Your task to perform on an android device: open app "Facebook Messenger" (install if not already installed) and enter user name: "divorce@inbox.com" and password: "caviar" Image 0: 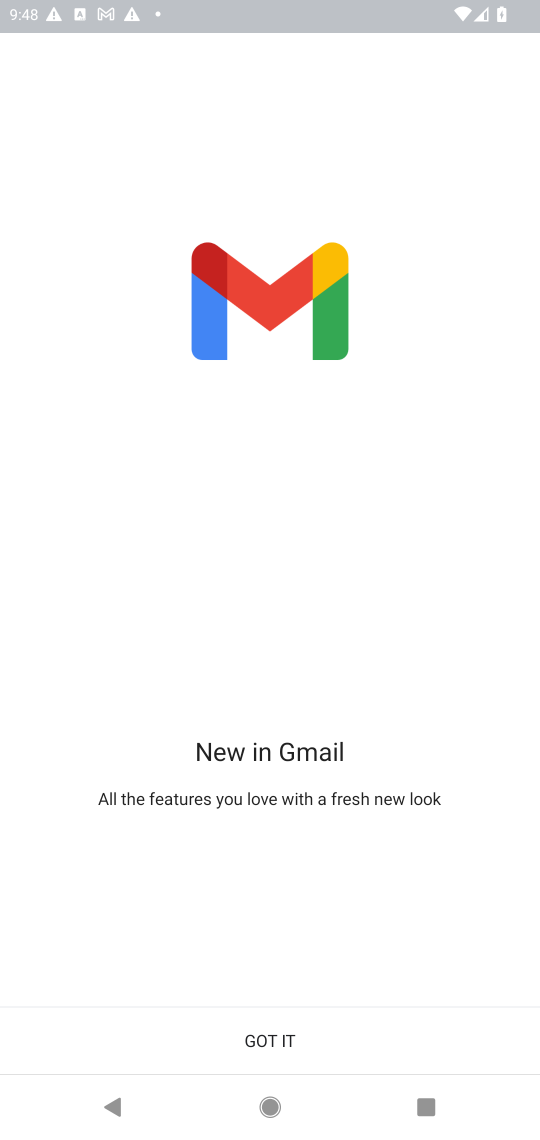
Step 0: press home button
Your task to perform on an android device: open app "Facebook Messenger" (install if not already installed) and enter user name: "divorce@inbox.com" and password: "caviar" Image 1: 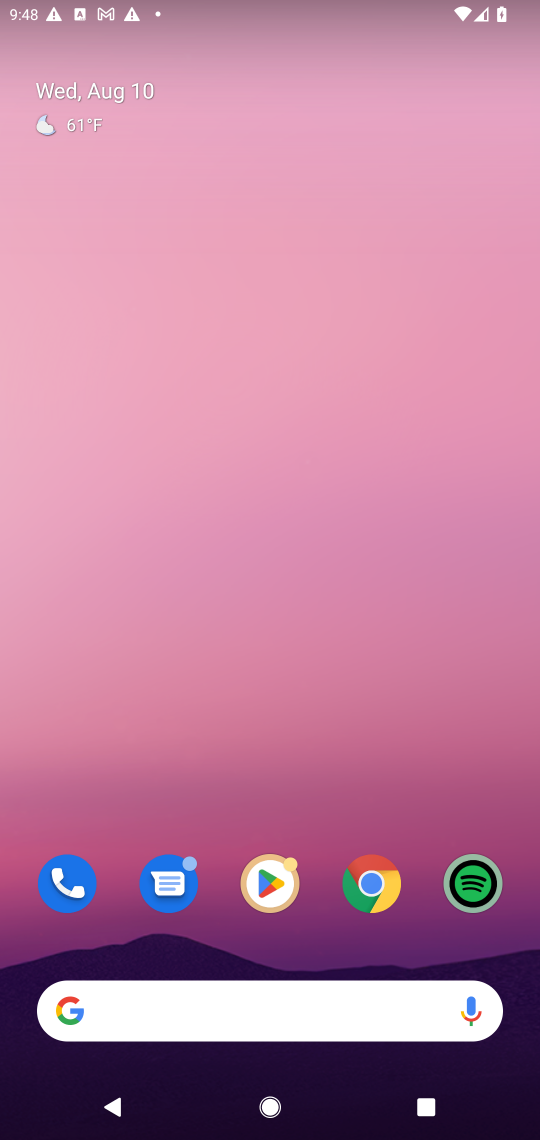
Step 1: click (250, 876)
Your task to perform on an android device: open app "Facebook Messenger" (install if not already installed) and enter user name: "divorce@inbox.com" and password: "caviar" Image 2: 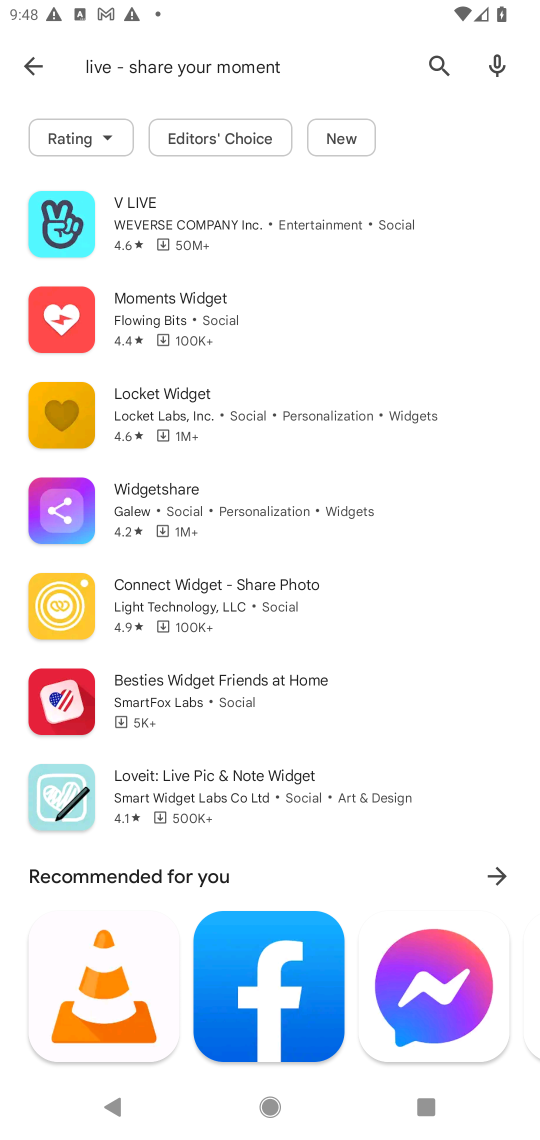
Step 2: click (425, 61)
Your task to perform on an android device: open app "Facebook Messenger" (install if not already installed) and enter user name: "divorce@inbox.com" and password: "caviar" Image 3: 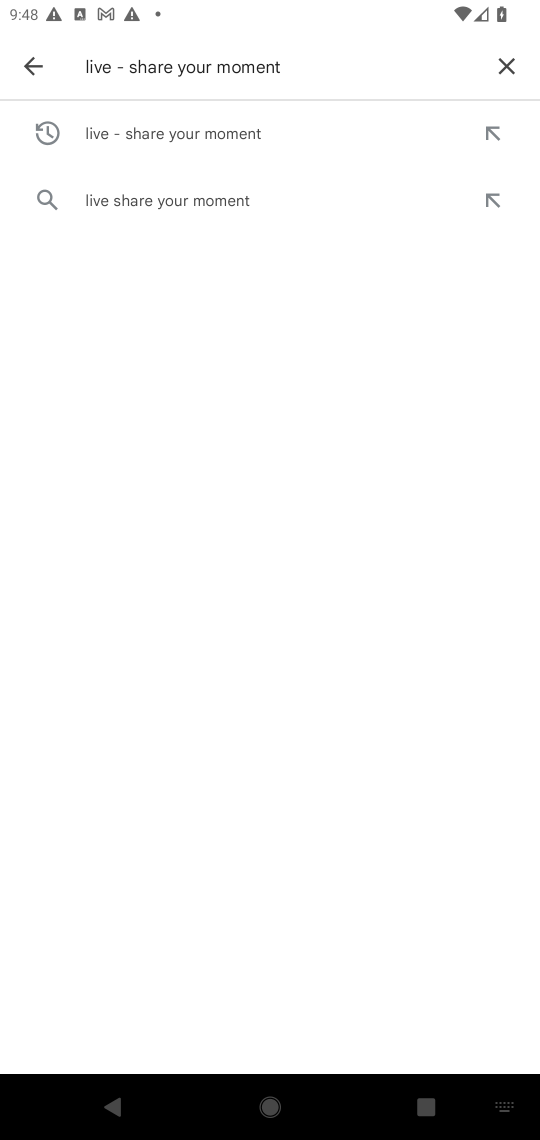
Step 3: click (501, 66)
Your task to perform on an android device: open app "Facebook Messenger" (install if not already installed) and enter user name: "divorce@inbox.com" and password: "caviar" Image 4: 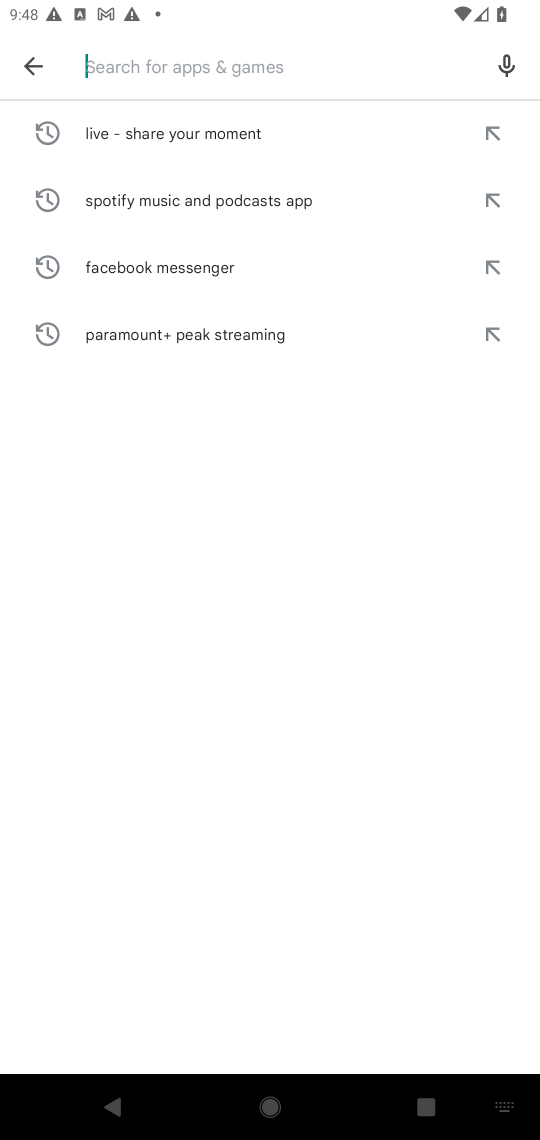
Step 4: type "Facebook Messenger"
Your task to perform on an android device: open app "Facebook Messenger" (install if not already installed) and enter user name: "divorce@inbox.com" and password: "caviar" Image 5: 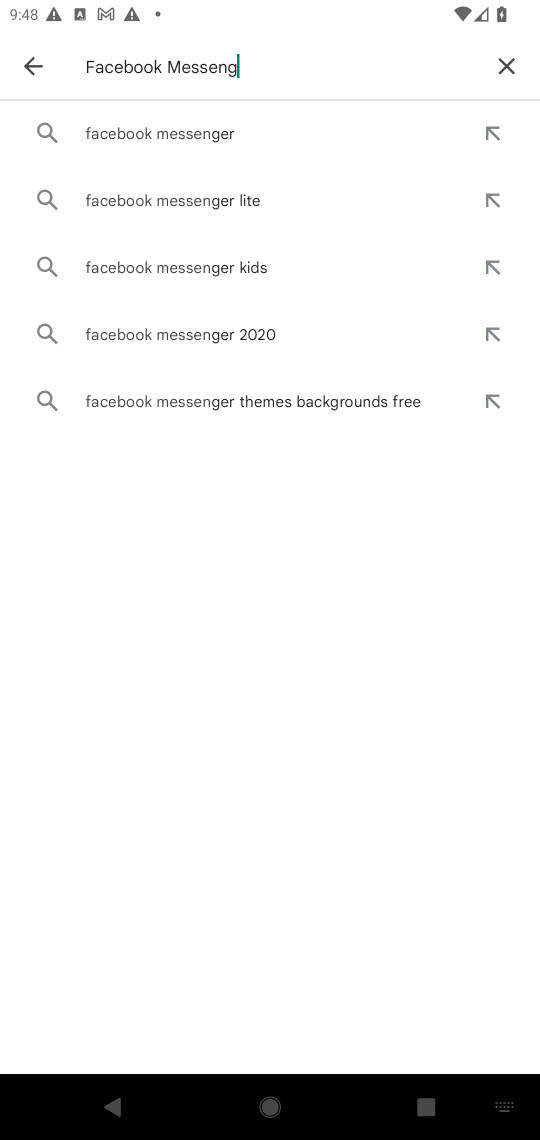
Step 5: type ""
Your task to perform on an android device: open app "Facebook Messenger" (install if not already installed) and enter user name: "divorce@inbox.com" and password: "caviar" Image 6: 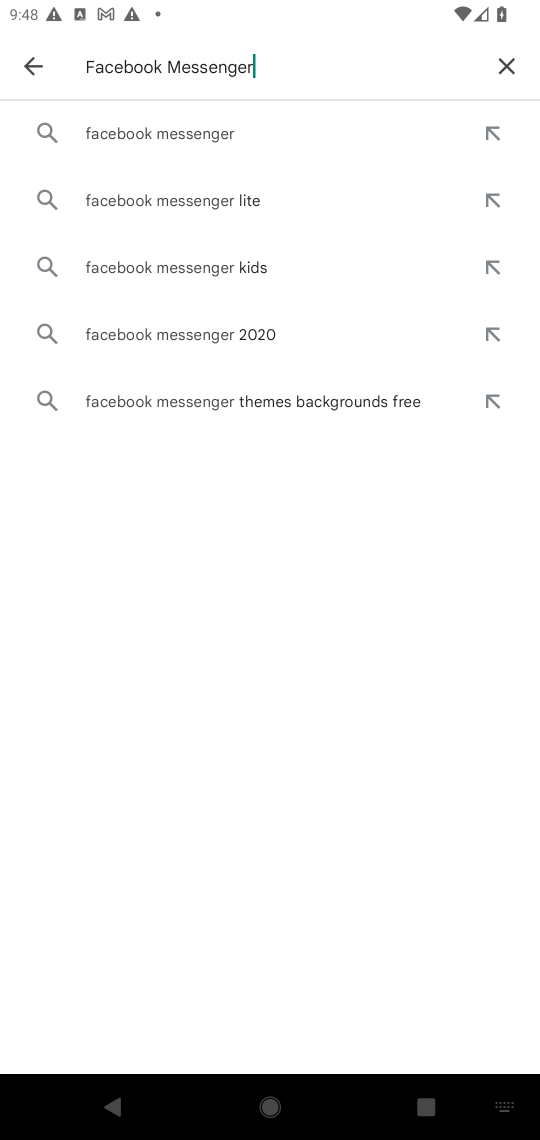
Step 6: click (119, 120)
Your task to perform on an android device: open app "Facebook Messenger" (install if not already installed) and enter user name: "divorce@inbox.com" and password: "caviar" Image 7: 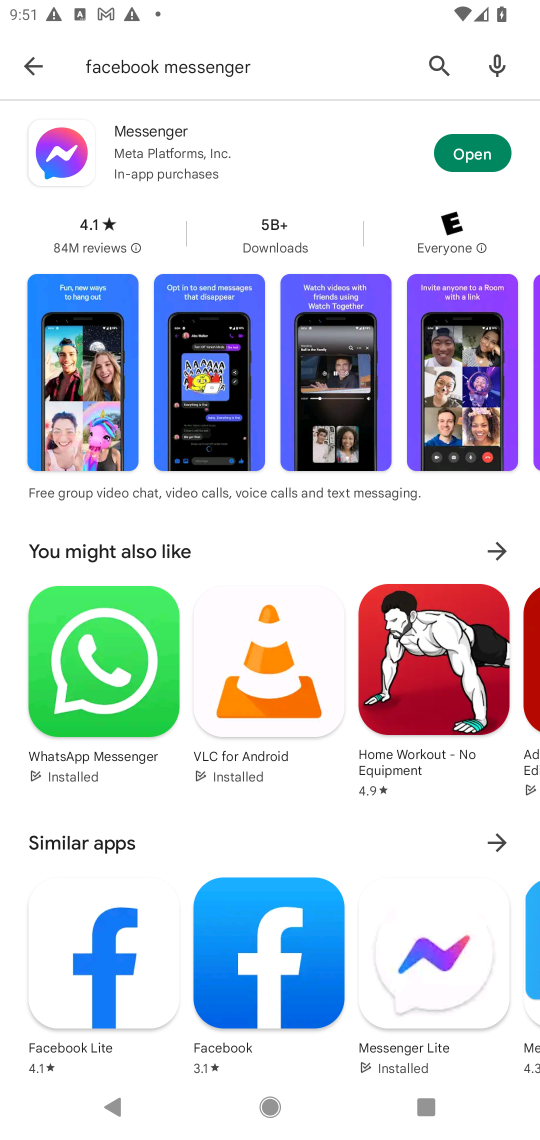
Step 7: click (477, 156)
Your task to perform on an android device: open app "Facebook Messenger" (install if not already installed) and enter user name: "divorce@inbox.com" and password: "caviar" Image 8: 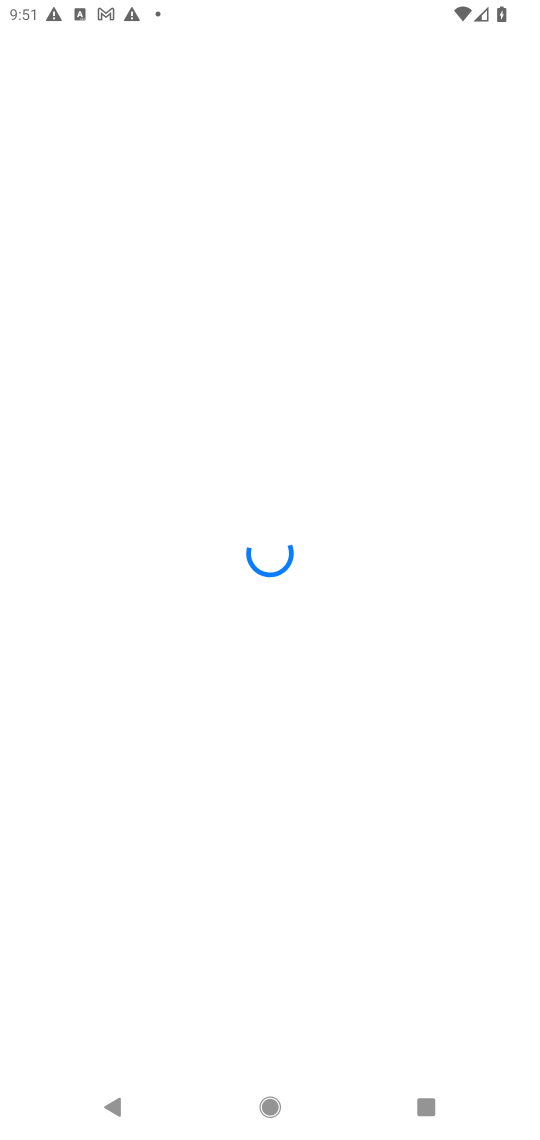
Step 8: task complete